Your task to perform on an android device: What's the weather going to be tomorrow? Image 0: 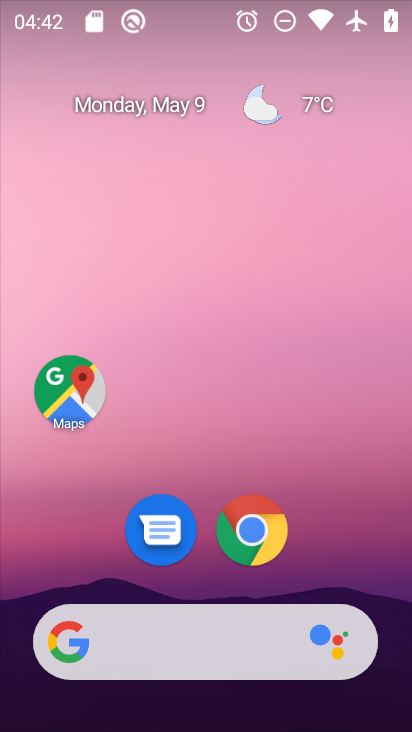
Step 0: click (306, 98)
Your task to perform on an android device: What's the weather going to be tomorrow? Image 1: 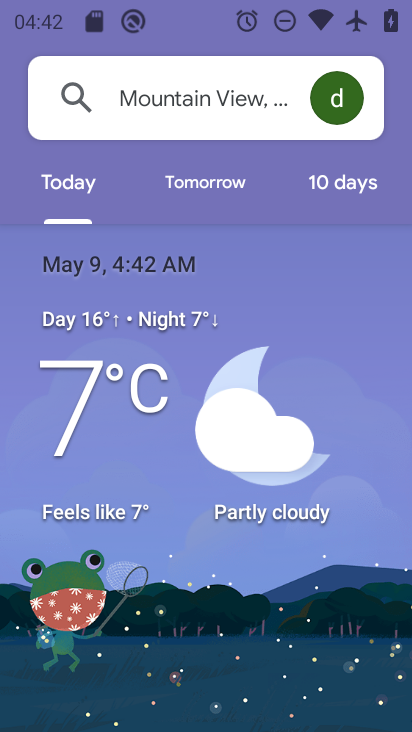
Step 1: click (197, 190)
Your task to perform on an android device: What's the weather going to be tomorrow? Image 2: 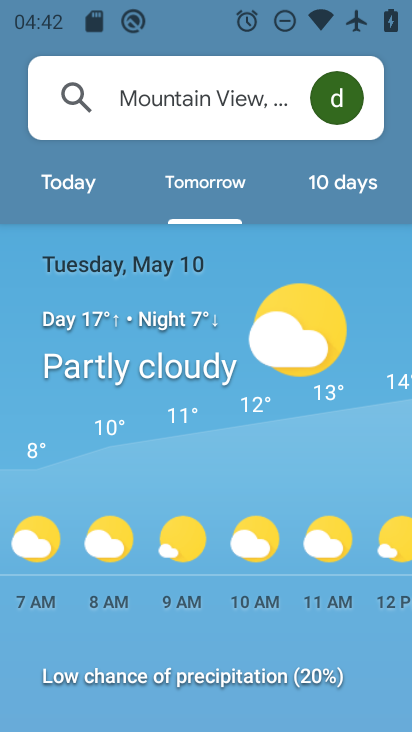
Step 2: drag from (213, 672) to (200, 329)
Your task to perform on an android device: What's the weather going to be tomorrow? Image 3: 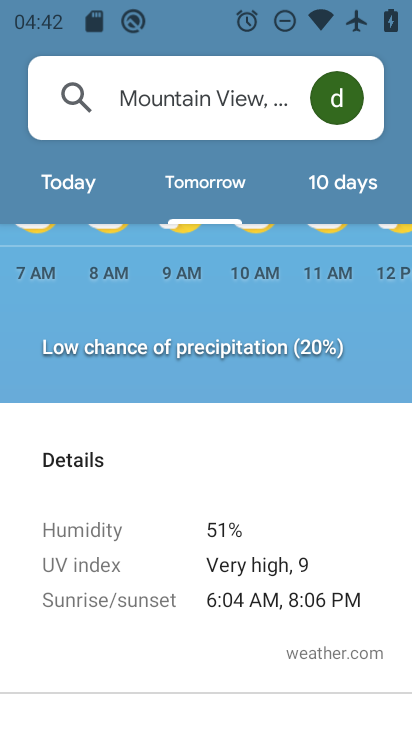
Step 3: drag from (217, 333) to (199, 573)
Your task to perform on an android device: What's the weather going to be tomorrow? Image 4: 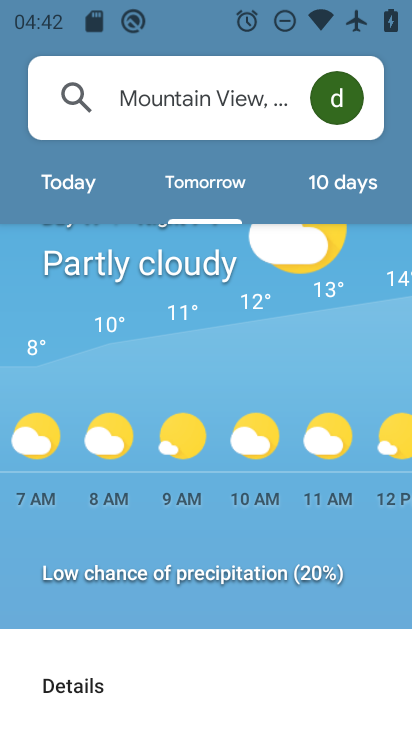
Step 4: drag from (347, 450) to (73, 432)
Your task to perform on an android device: What's the weather going to be tomorrow? Image 5: 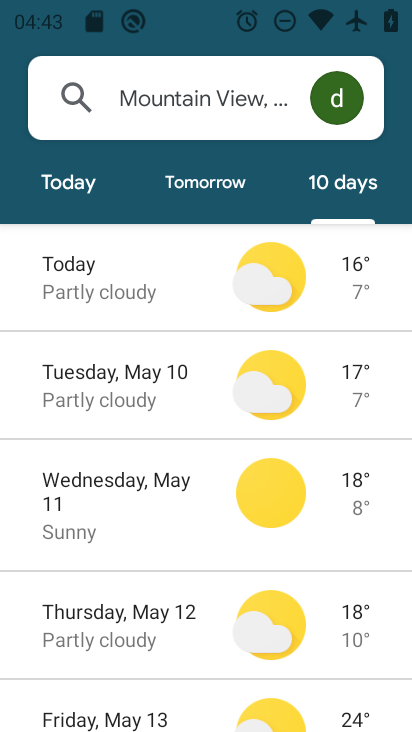
Step 5: click (203, 198)
Your task to perform on an android device: What's the weather going to be tomorrow? Image 6: 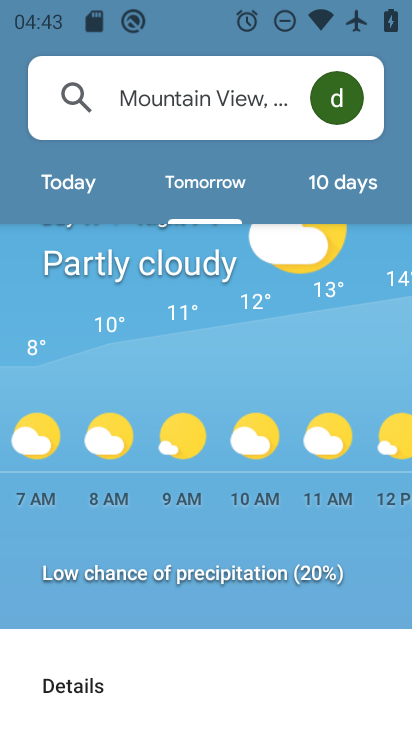
Step 6: task complete